Your task to perform on an android device: toggle translation in the chrome app Image 0: 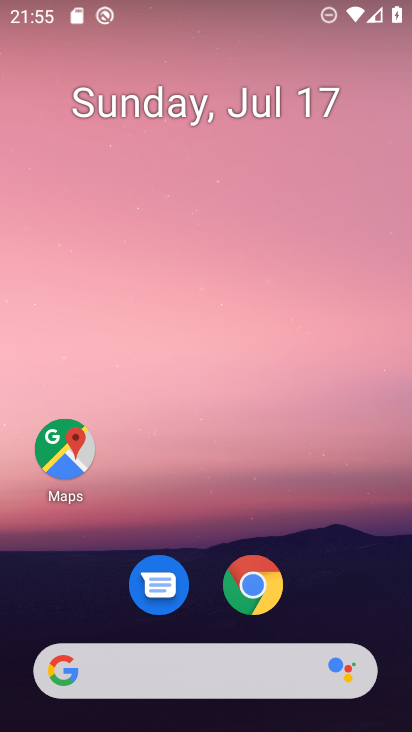
Step 0: click (248, 582)
Your task to perform on an android device: toggle translation in the chrome app Image 1: 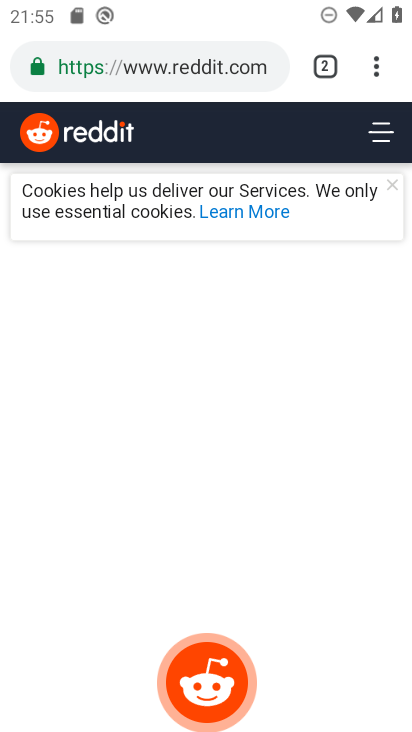
Step 1: drag from (375, 70) to (236, 590)
Your task to perform on an android device: toggle translation in the chrome app Image 2: 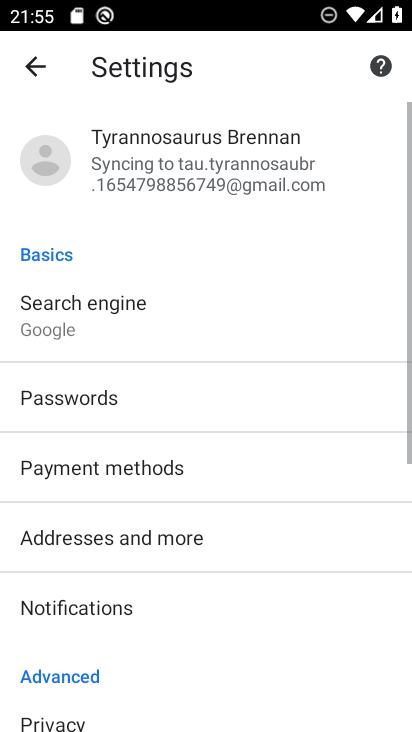
Step 2: drag from (186, 659) to (260, 86)
Your task to perform on an android device: toggle translation in the chrome app Image 3: 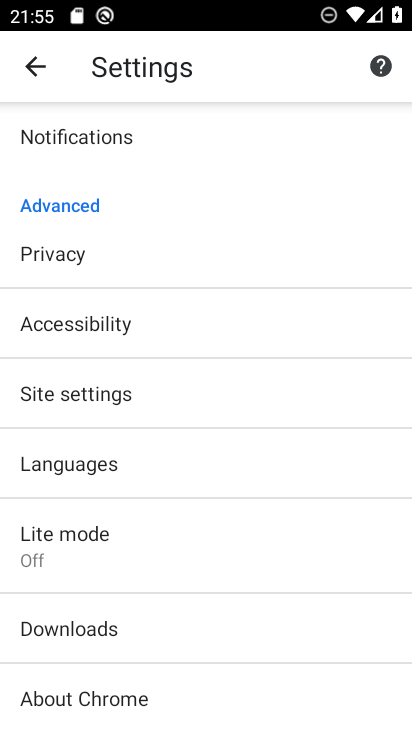
Step 3: click (119, 455)
Your task to perform on an android device: toggle translation in the chrome app Image 4: 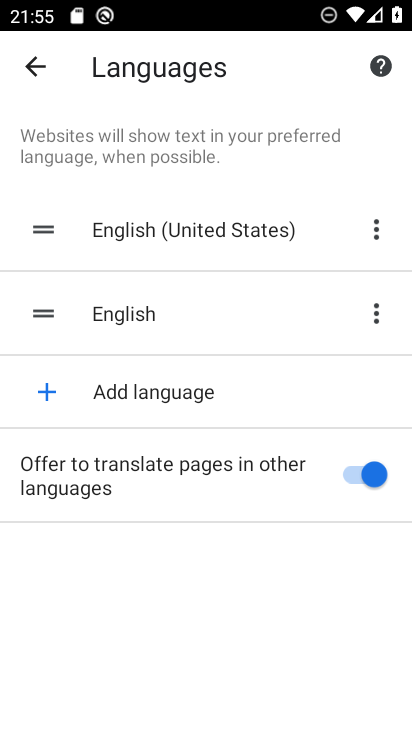
Step 4: click (356, 469)
Your task to perform on an android device: toggle translation in the chrome app Image 5: 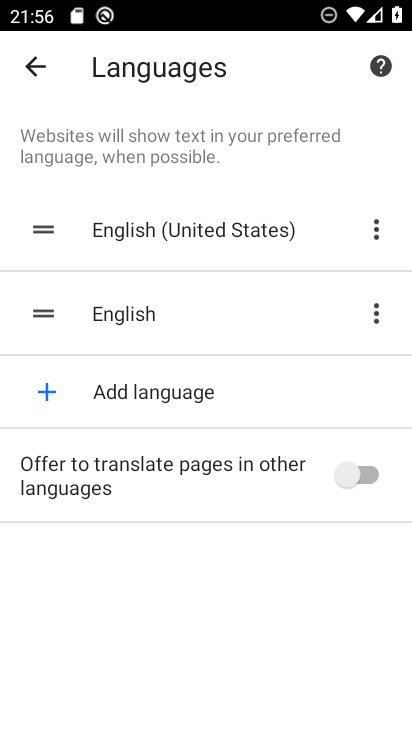
Step 5: task complete